Your task to perform on an android device: turn on bluetooth scan Image 0: 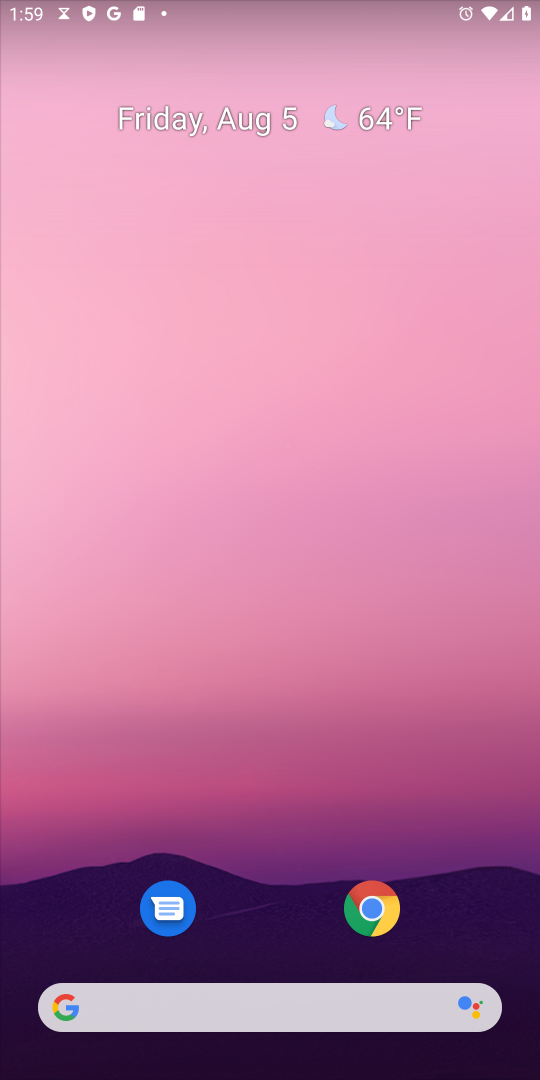
Step 0: press home button
Your task to perform on an android device: turn on bluetooth scan Image 1: 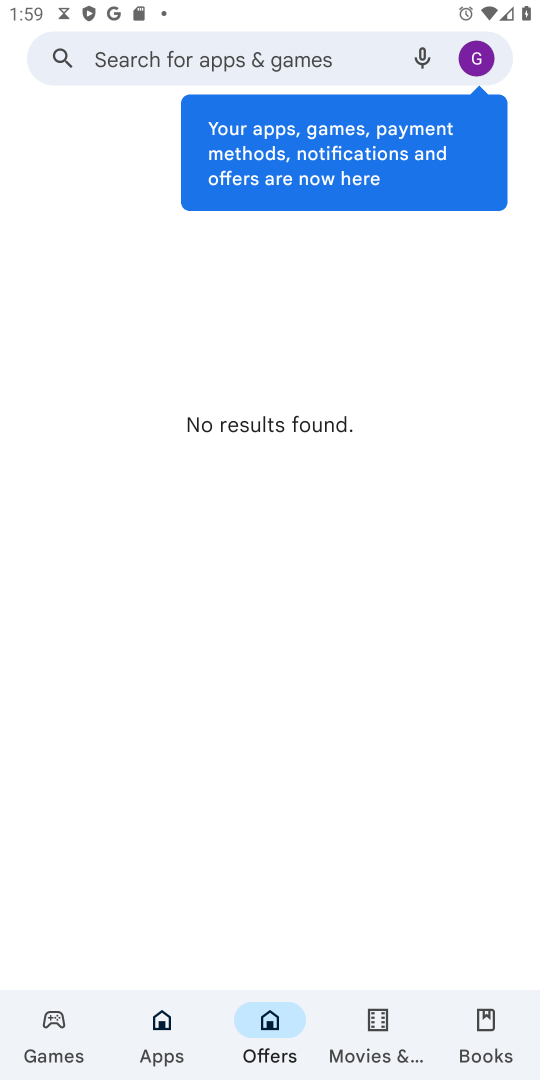
Step 1: press home button
Your task to perform on an android device: turn on bluetooth scan Image 2: 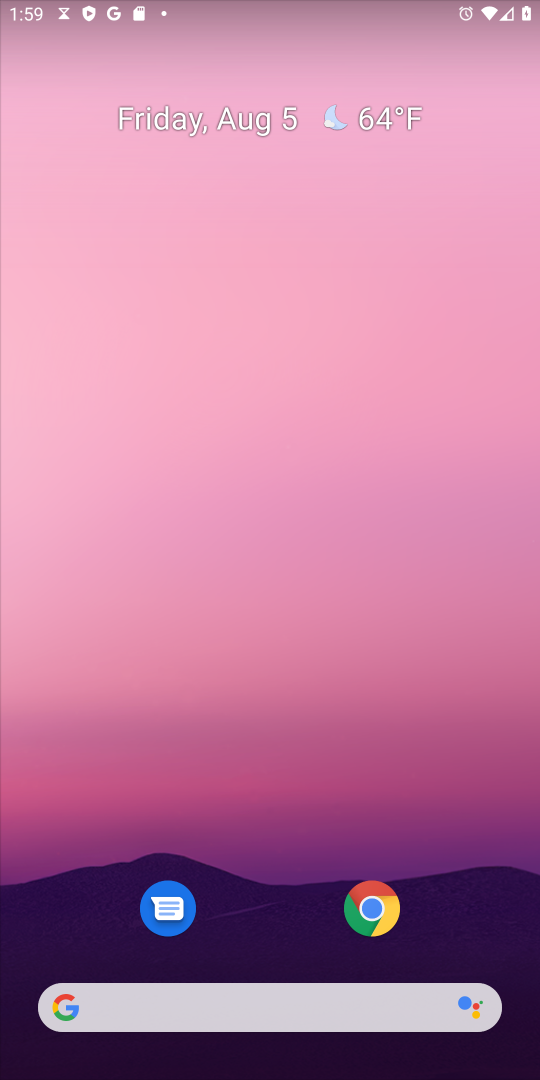
Step 2: drag from (287, 890) to (448, 4)
Your task to perform on an android device: turn on bluetooth scan Image 3: 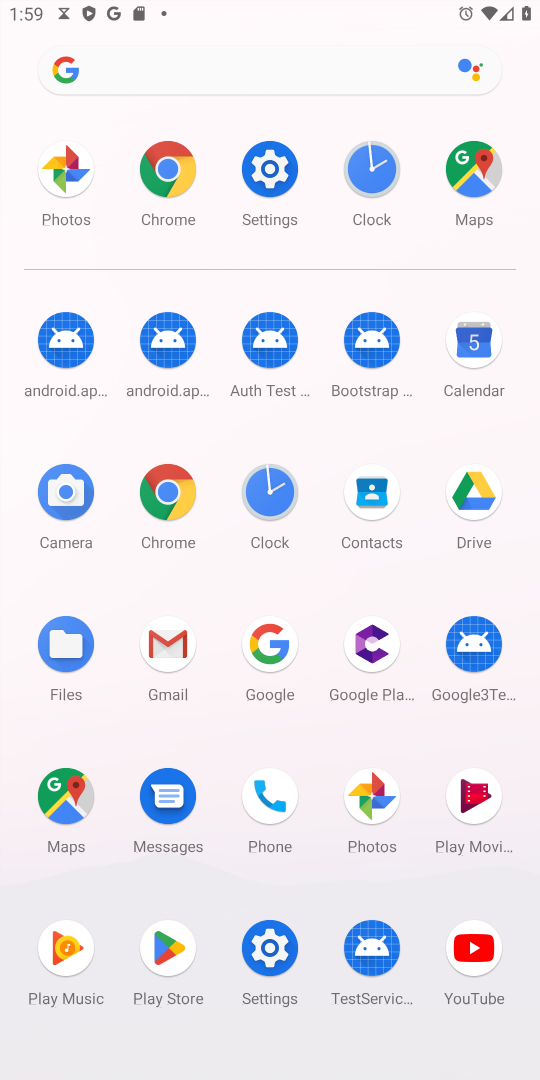
Step 3: click (257, 960)
Your task to perform on an android device: turn on bluetooth scan Image 4: 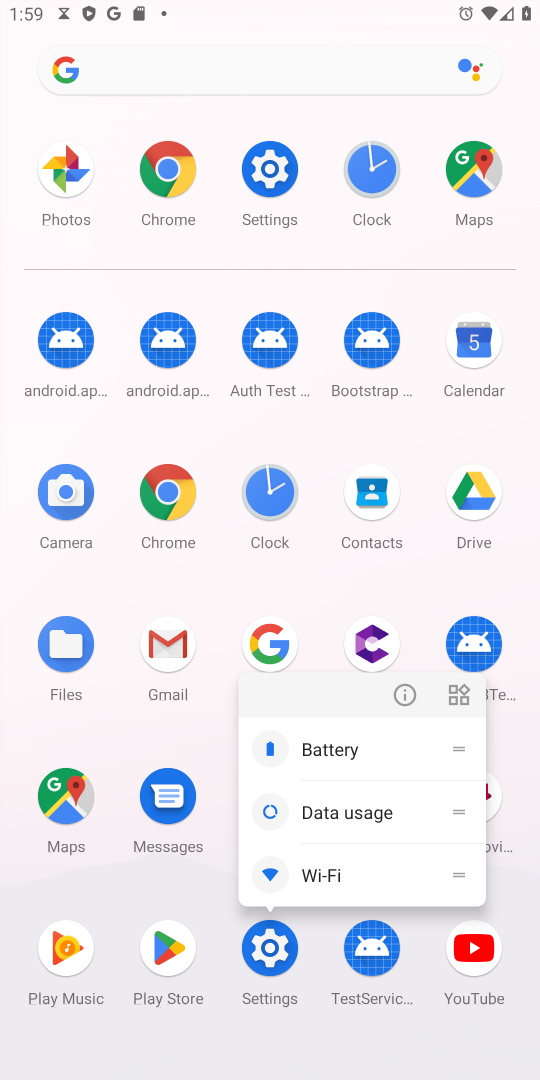
Step 4: click (257, 960)
Your task to perform on an android device: turn on bluetooth scan Image 5: 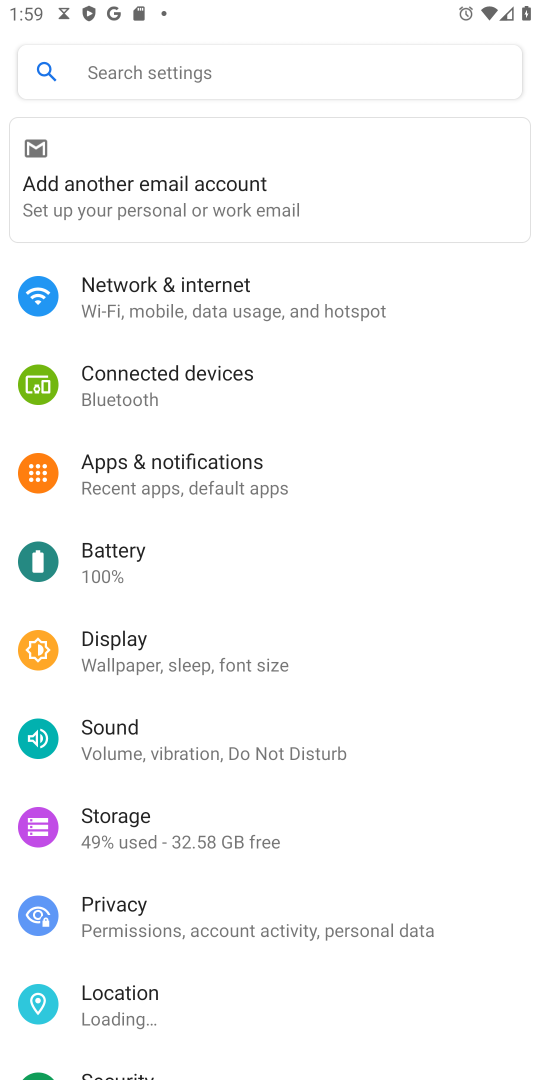
Step 5: drag from (243, 766) to (311, 396)
Your task to perform on an android device: turn on bluetooth scan Image 6: 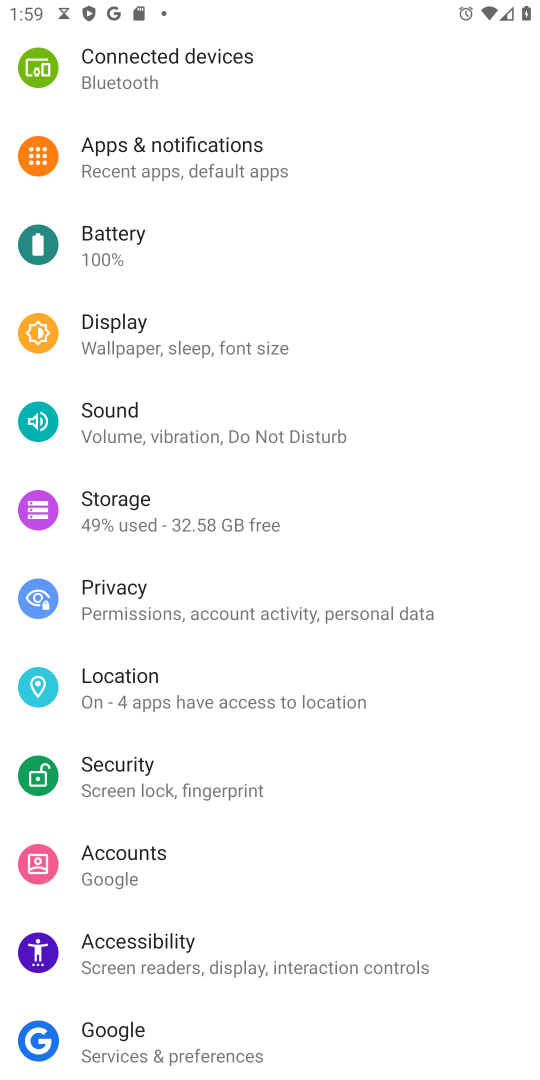
Step 6: click (103, 675)
Your task to perform on an android device: turn on bluetooth scan Image 7: 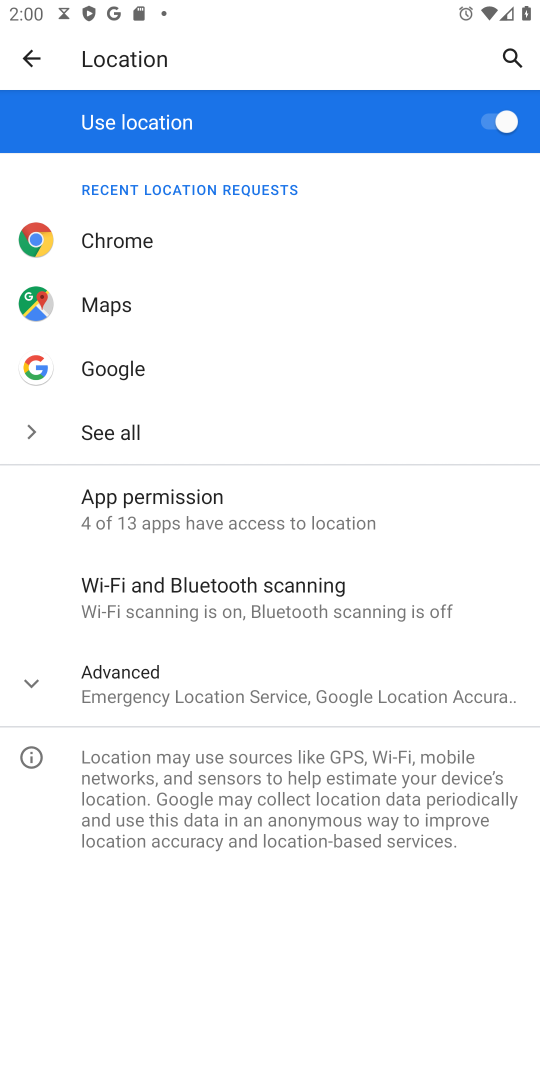
Step 7: click (166, 672)
Your task to perform on an android device: turn on bluetooth scan Image 8: 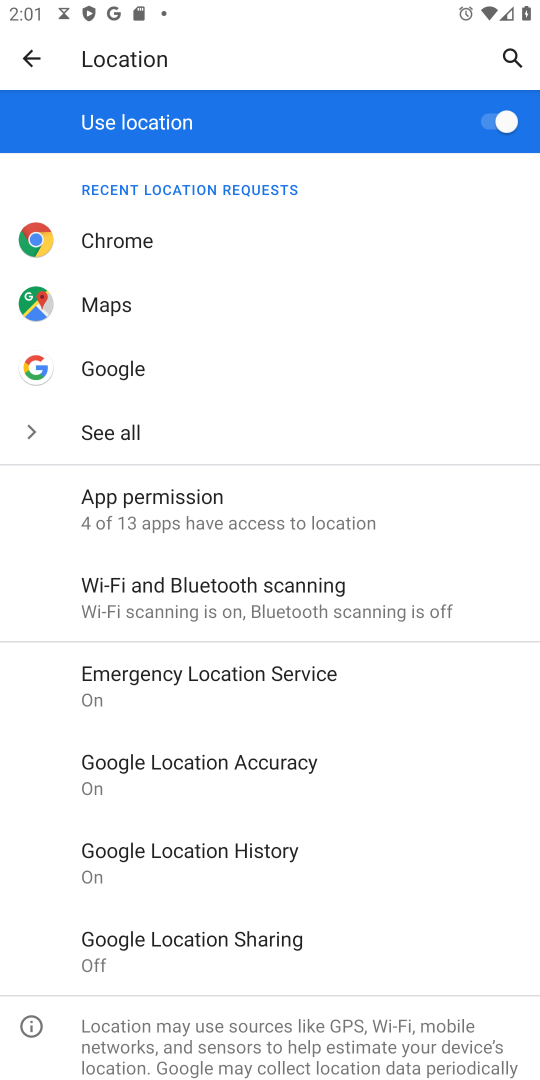
Step 8: click (138, 607)
Your task to perform on an android device: turn on bluetooth scan Image 9: 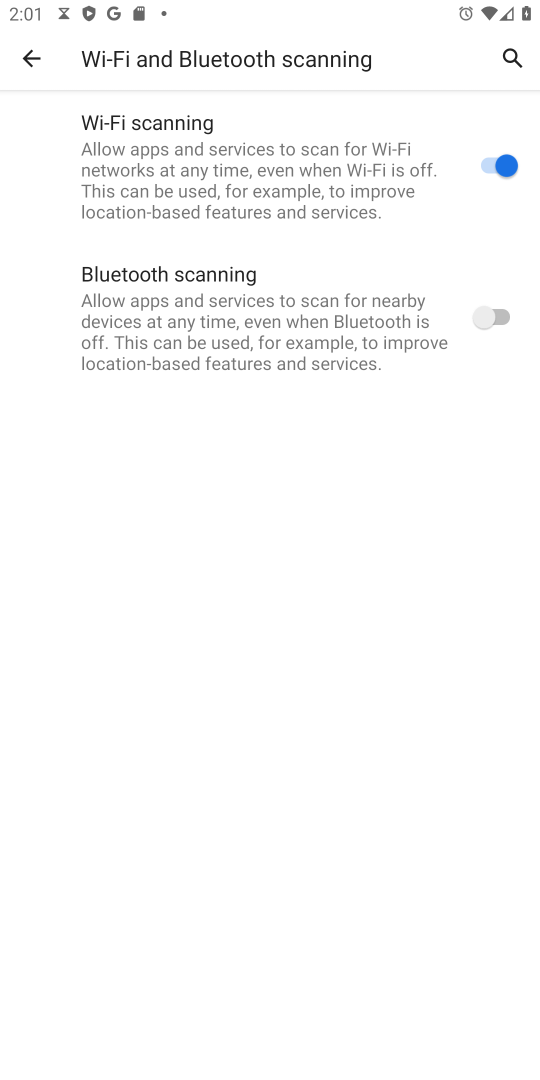
Step 9: click (168, 374)
Your task to perform on an android device: turn on bluetooth scan Image 10: 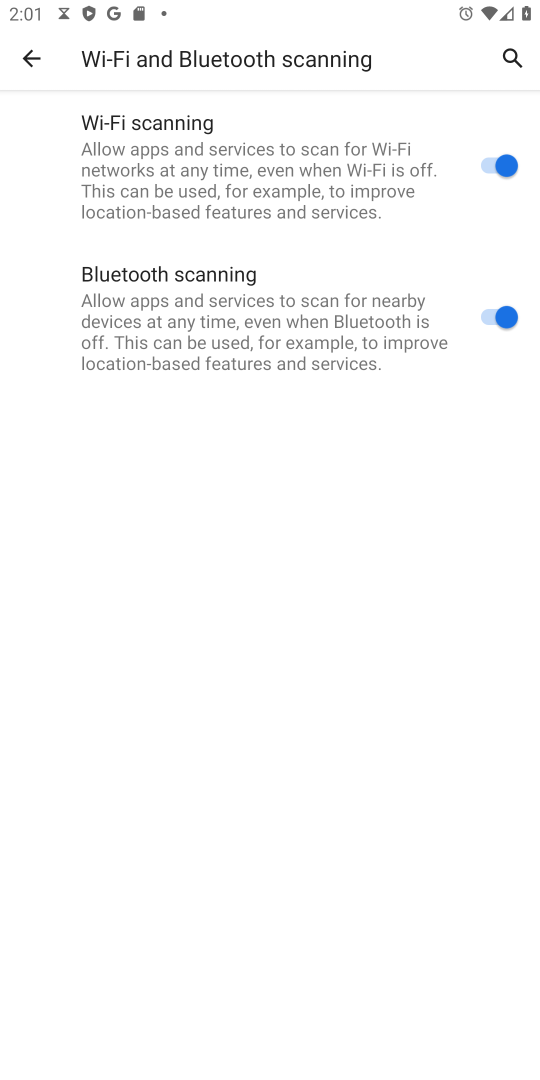
Step 10: task complete